Your task to perform on an android device: turn off wifi Image 0: 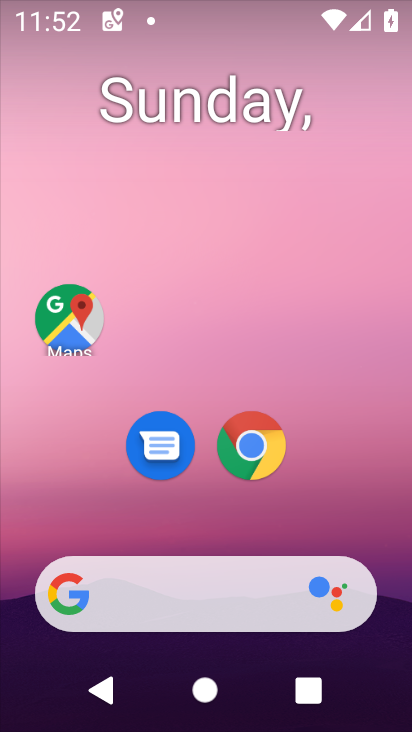
Step 0: drag from (281, 423) to (228, 78)
Your task to perform on an android device: turn off wifi Image 1: 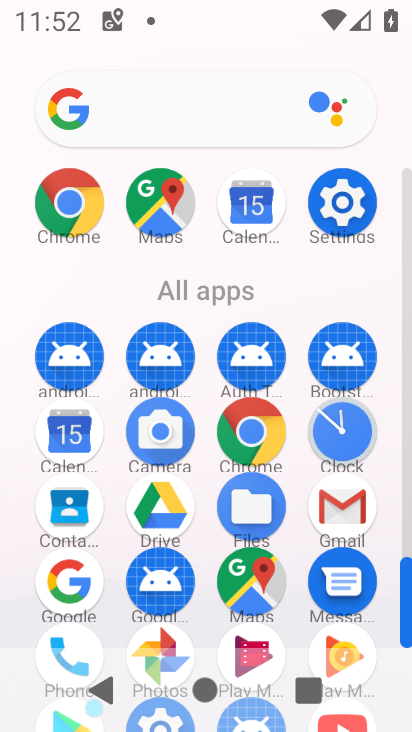
Step 1: click (334, 190)
Your task to perform on an android device: turn off wifi Image 2: 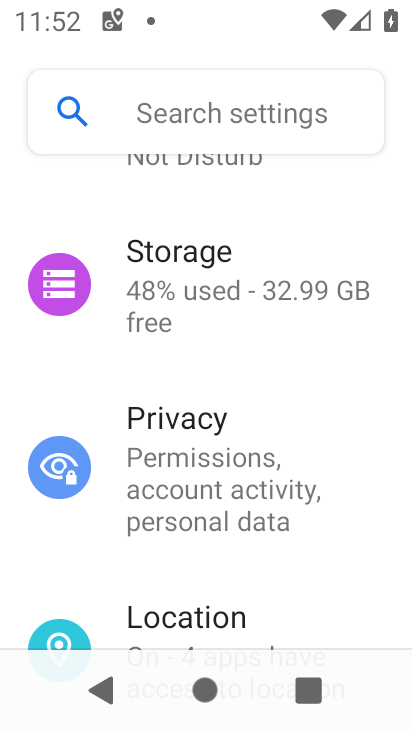
Step 2: drag from (243, 189) to (209, 595)
Your task to perform on an android device: turn off wifi Image 3: 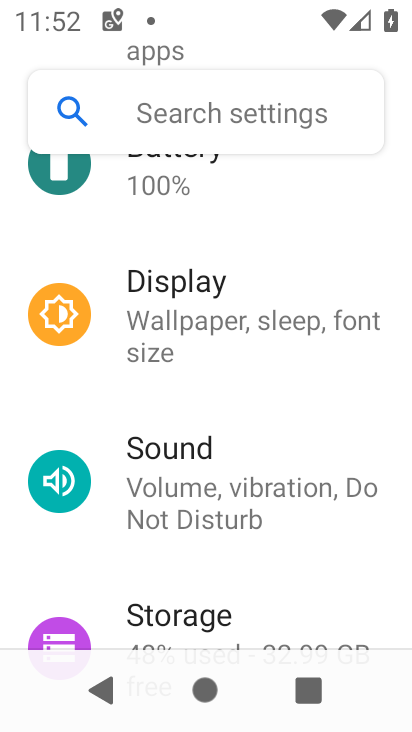
Step 3: drag from (151, 264) to (140, 563)
Your task to perform on an android device: turn off wifi Image 4: 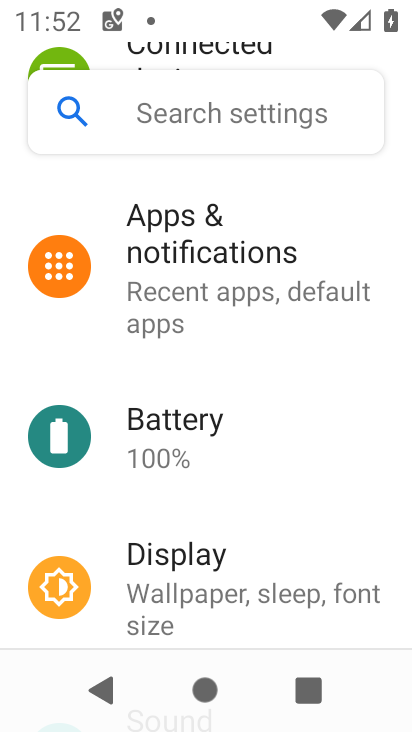
Step 4: drag from (229, 226) to (208, 558)
Your task to perform on an android device: turn off wifi Image 5: 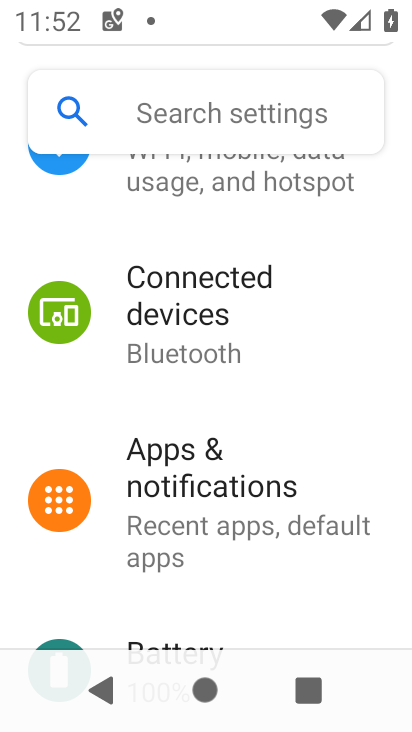
Step 5: drag from (143, 273) to (127, 464)
Your task to perform on an android device: turn off wifi Image 6: 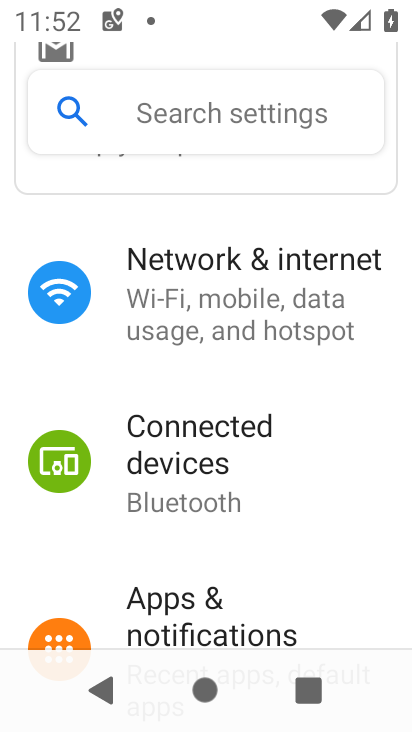
Step 6: click (119, 286)
Your task to perform on an android device: turn off wifi Image 7: 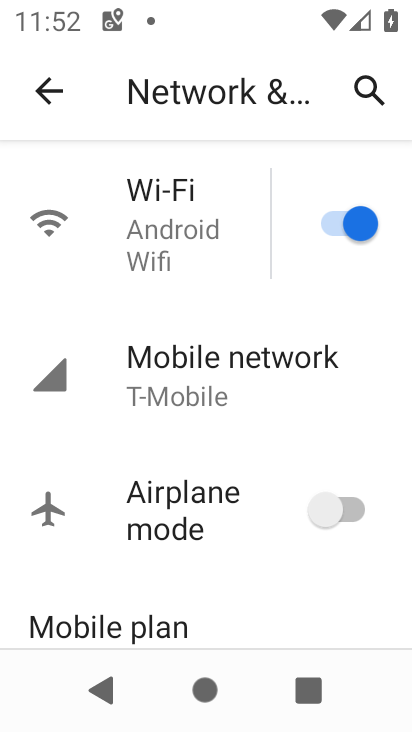
Step 7: click (345, 228)
Your task to perform on an android device: turn off wifi Image 8: 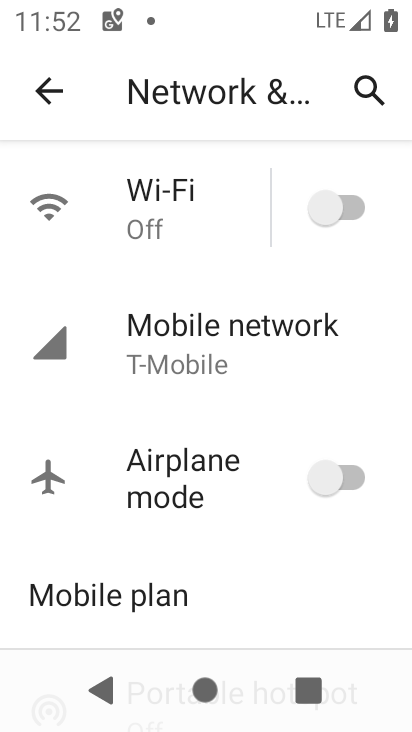
Step 8: task complete